Your task to perform on an android device: Go to Maps Image 0: 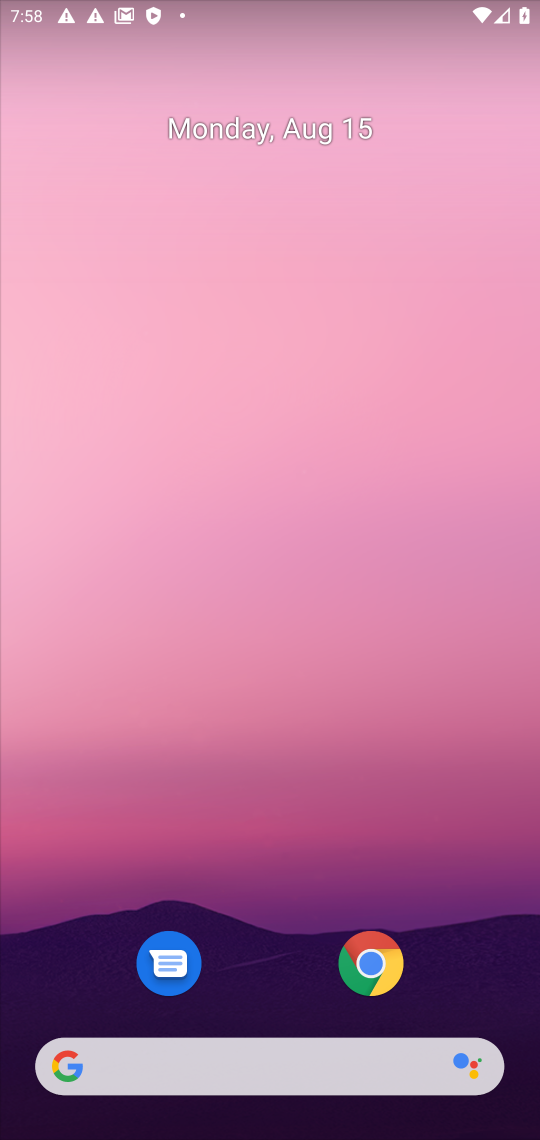
Step 0: drag from (45, 849) to (406, 746)
Your task to perform on an android device: Go to Maps Image 1: 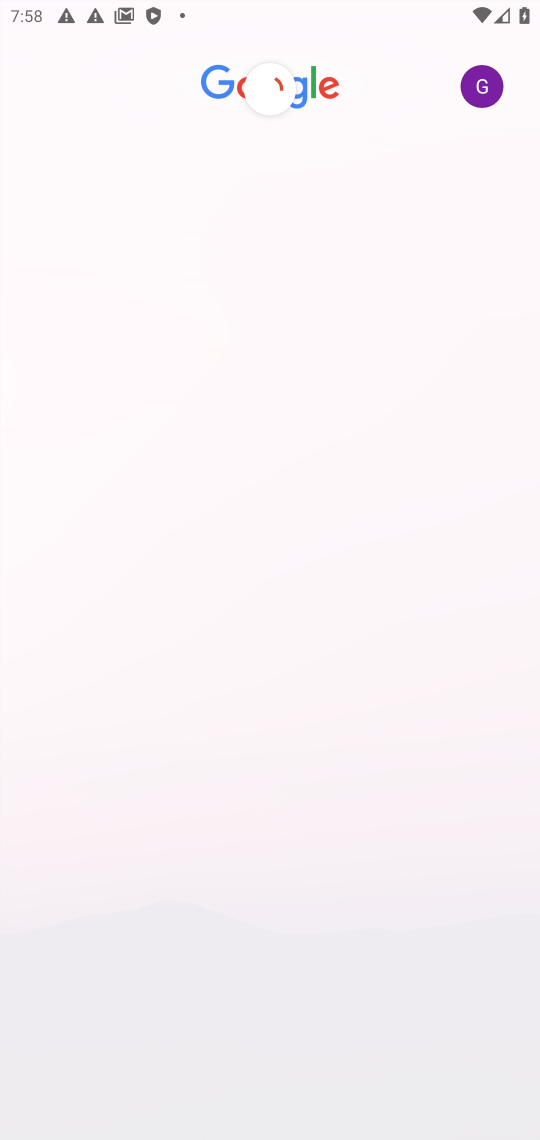
Step 1: press back button
Your task to perform on an android device: Go to Maps Image 2: 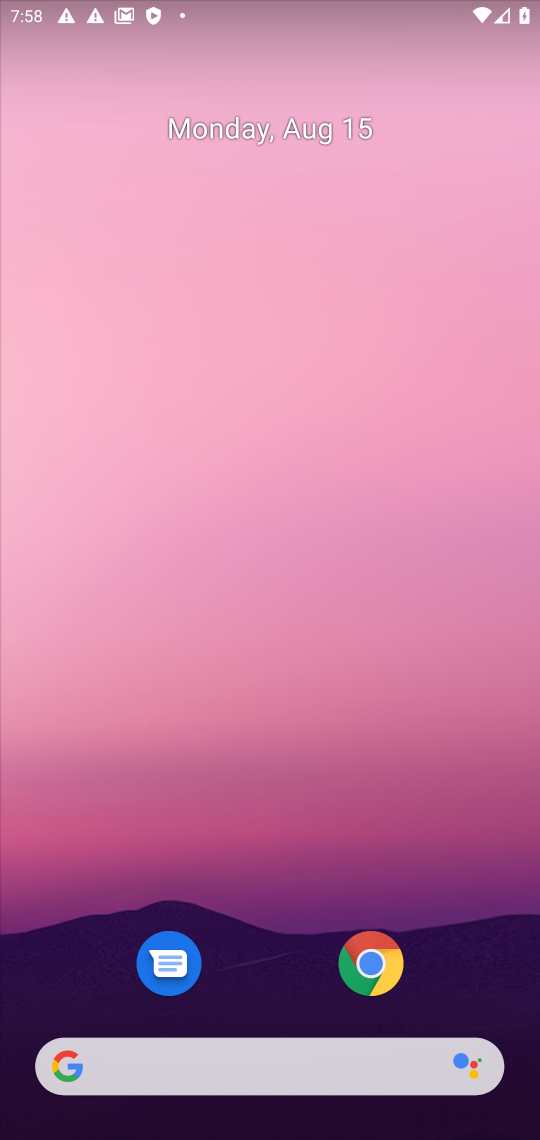
Step 2: drag from (285, 968) to (287, 172)
Your task to perform on an android device: Go to Maps Image 3: 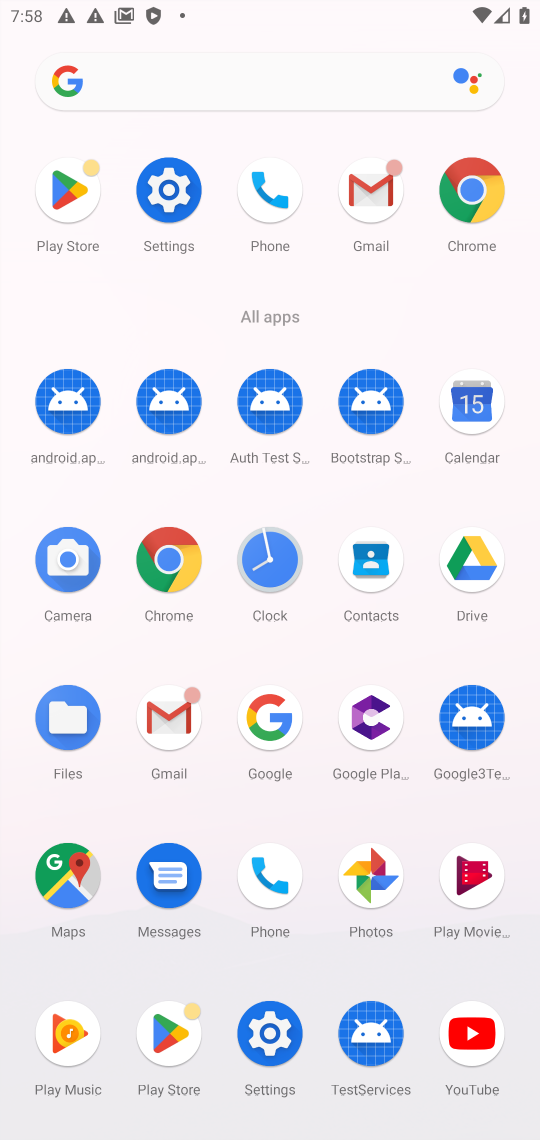
Step 3: click (67, 906)
Your task to perform on an android device: Go to Maps Image 4: 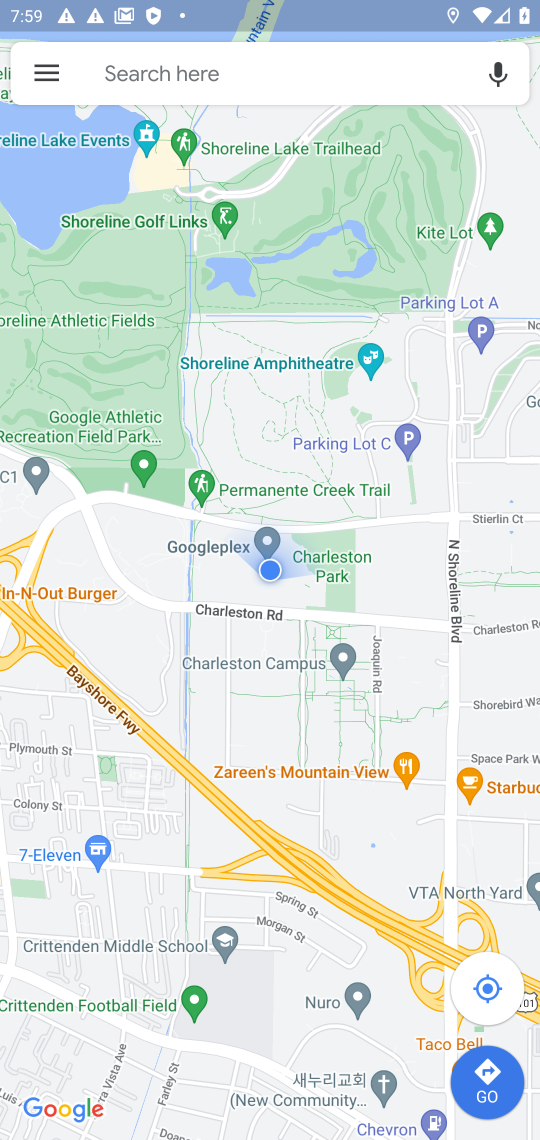
Step 4: task complete